Your task to perform on an android device: change notifications settings Image 0: 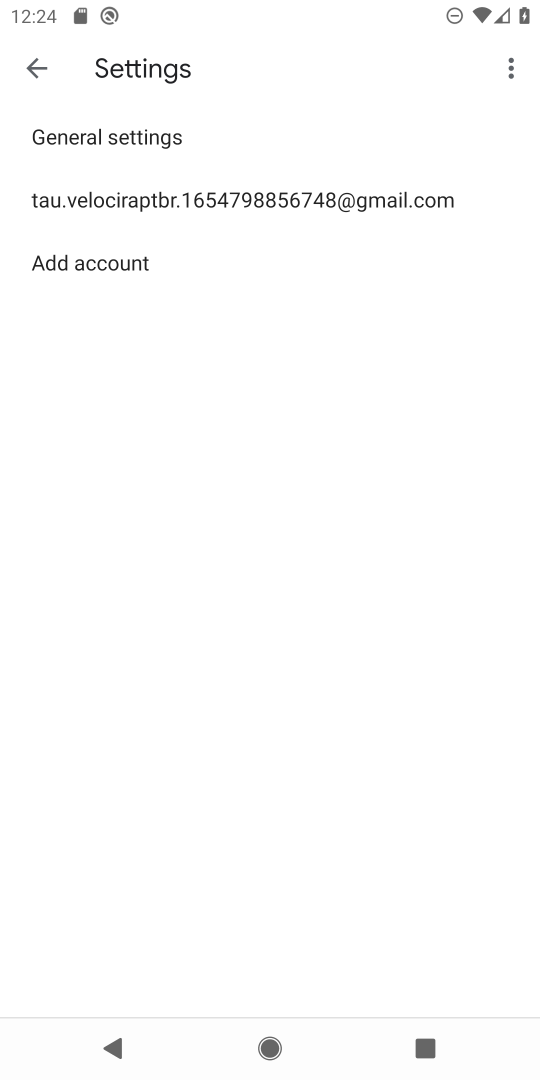
Step 0: press back button
Your task to perform on an android device: change notifications settings Image 1: 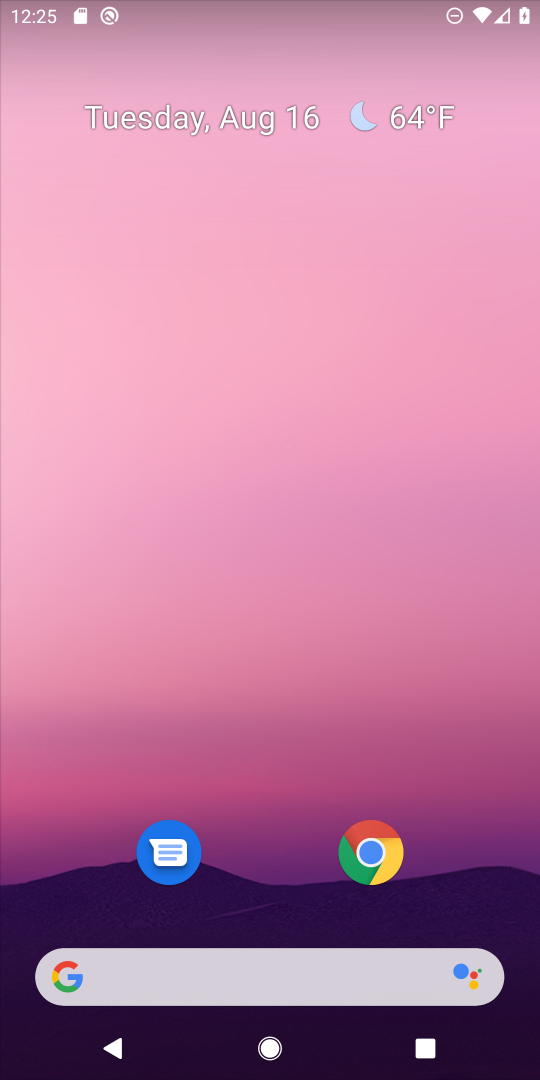
Step 1: drag from (227, 883) to (381, 189)
Your task to perform on an android device: change notifications settings Image 2: 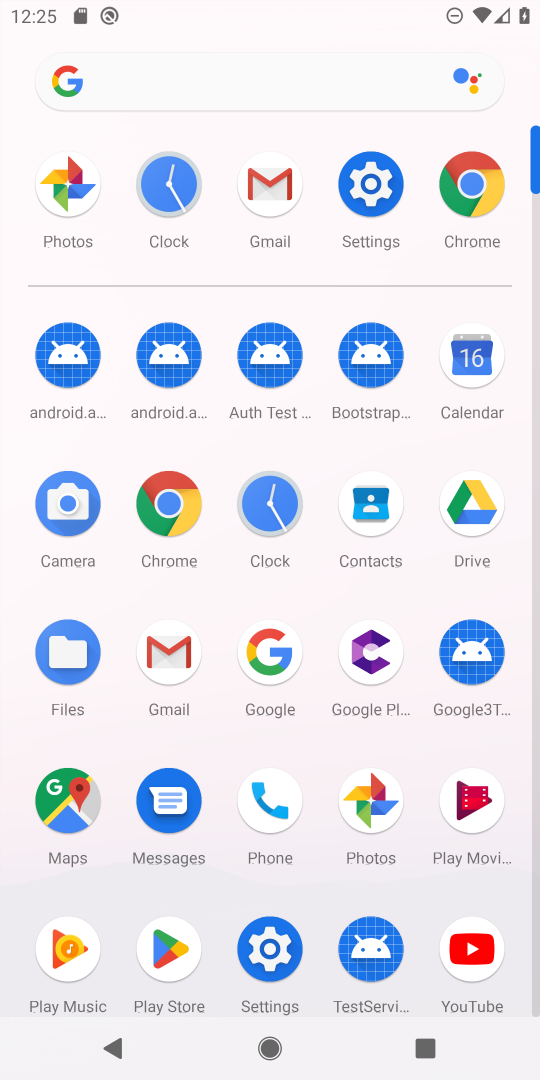
Step 2: click (379, 181)
Your task to perform on an android device: change notifications settings Image 3: 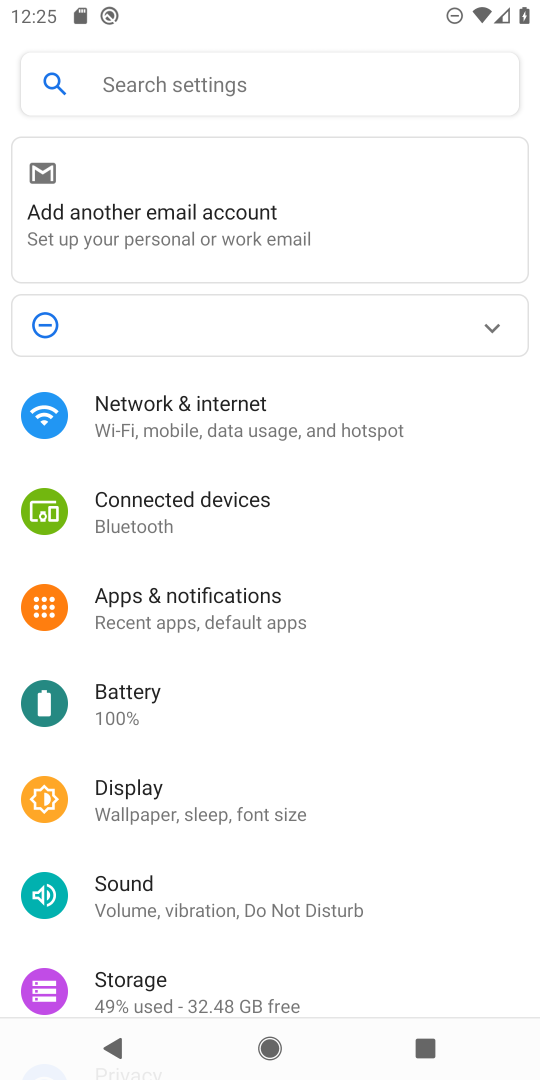
Step 3: click (185, 600)
Your task to perform on an android device: change notifications settings Image 4: 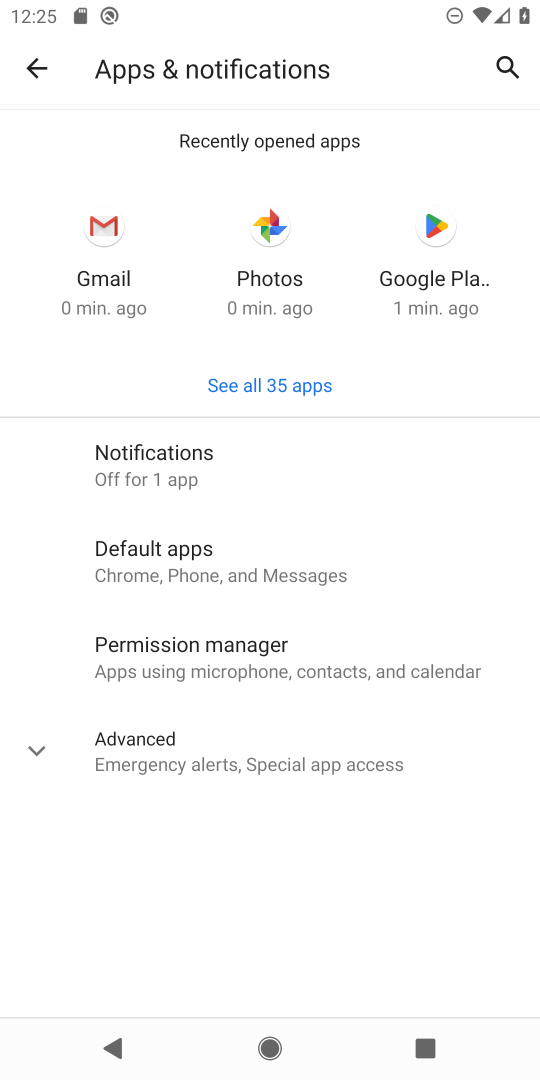
Step 4: click (193, 452)
Your task to perform on an android device: change notifications settings Image 5: 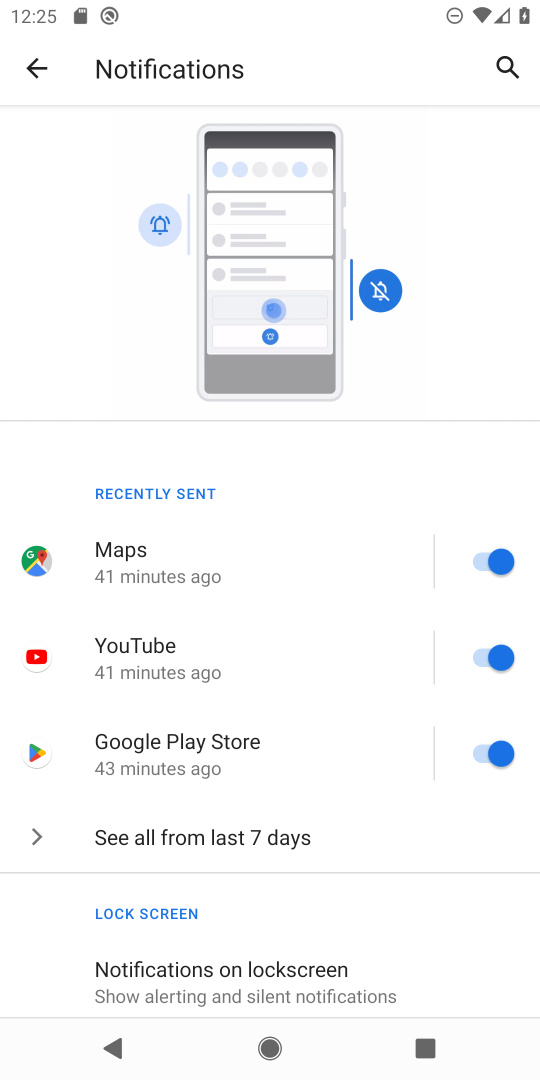
Step 5: drag from (245, 835) to (334, 374)
Your task to perform on an android device: change notifications settings Image 6: 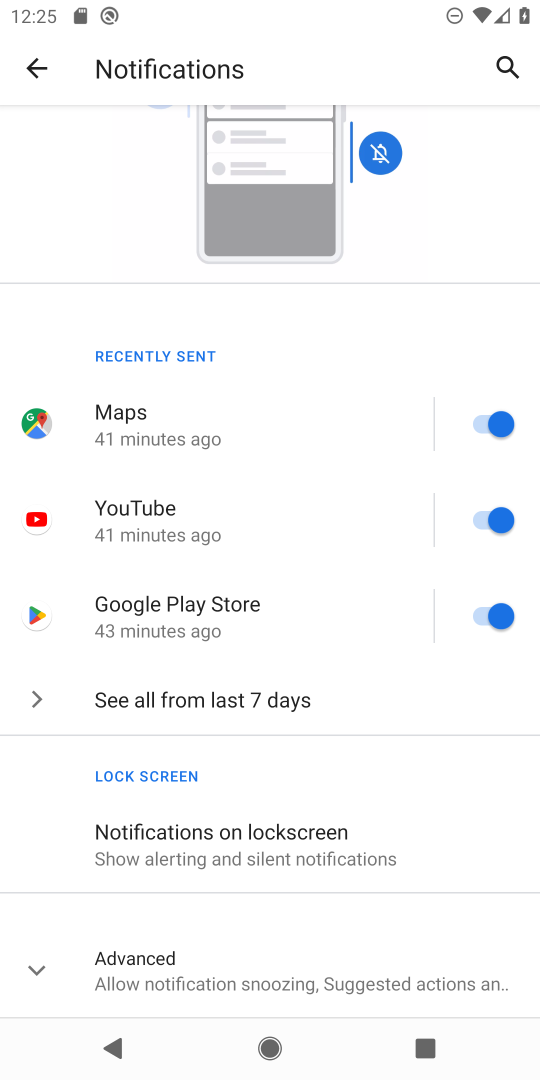
Step 6: click (186, 972)
Your task to perform on an android device: change notifications settings Image 7: 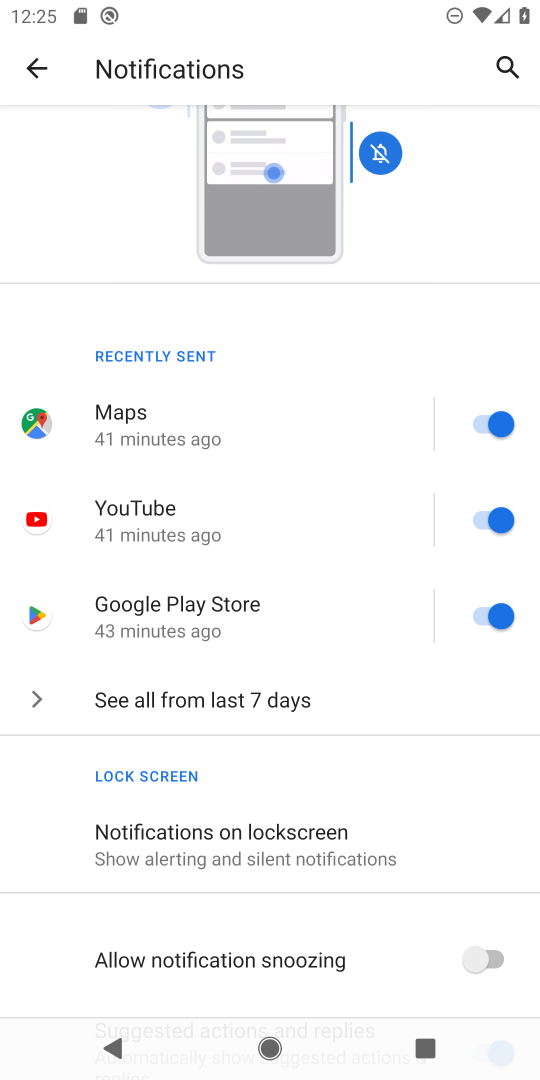
Step 7: drag from (225, 896) to (351, 255)
Your task to perform on an android device: change notifications settings Image 8: 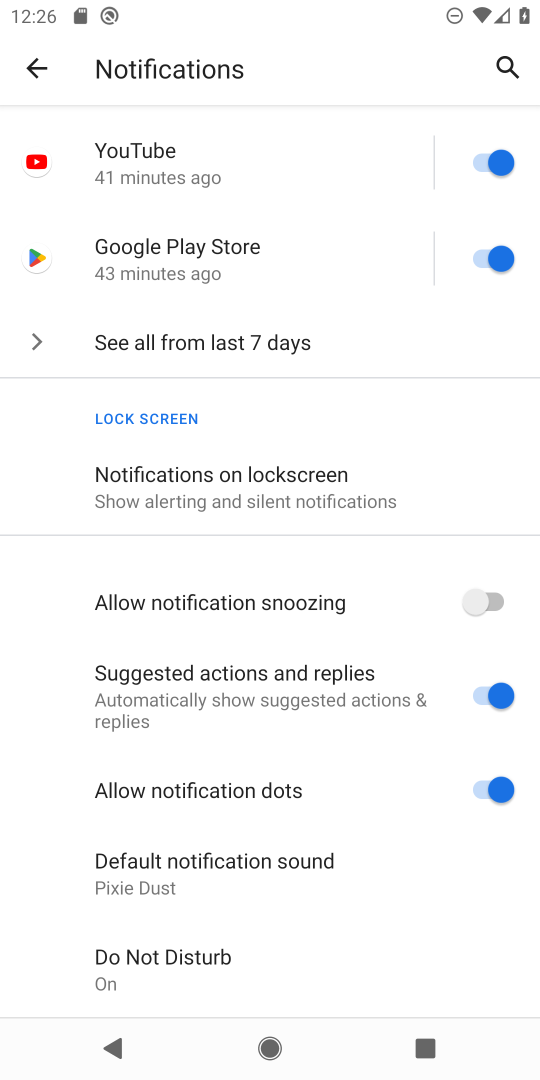
Step 8: click (484, 597)
Your task to perform on an android device: change notifications settings Image 9: 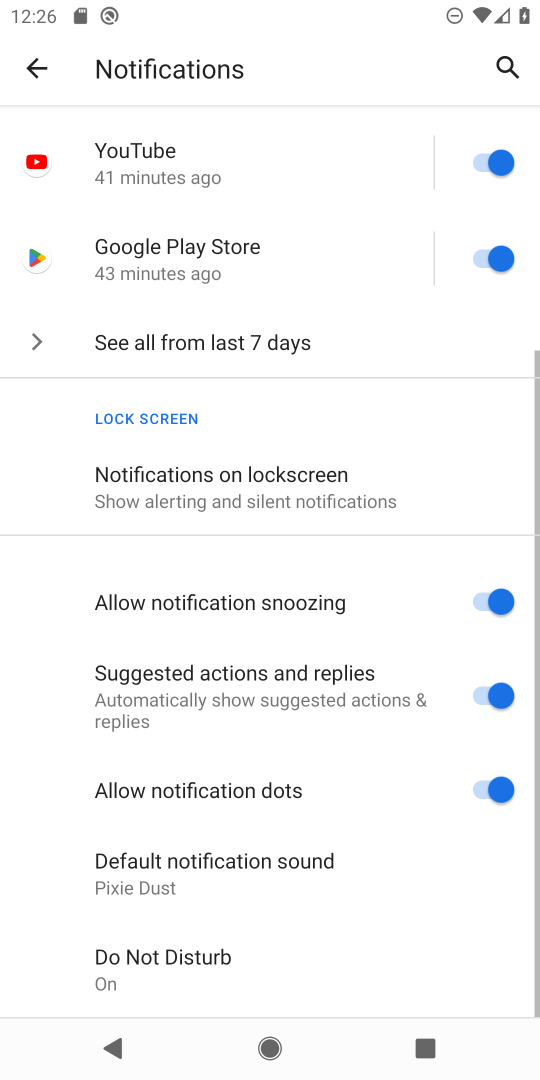
Step 9: task complete